Your task to perform on an android device: Go to display settings Image 0: 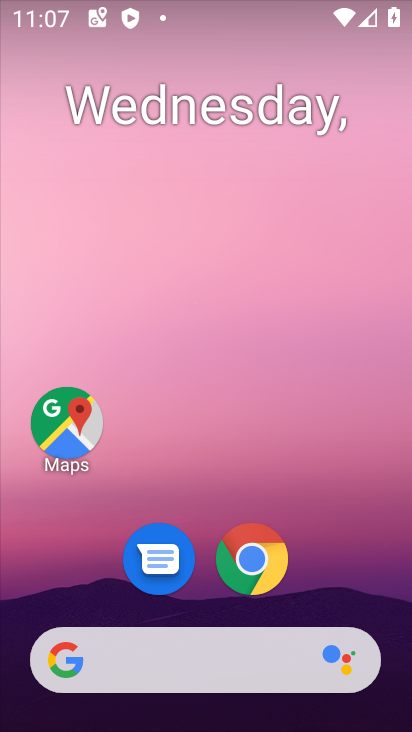
Step 0: drag from (174, 591) to (250, 38)
Your task to perform on an android device: Go to display settings Image 1: 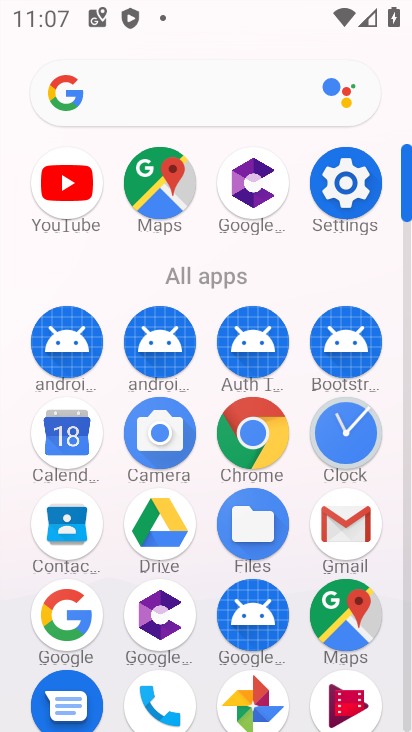
Step 1: click (347, 185)
Your task to perform on an android device: Go to display settings Image 2: 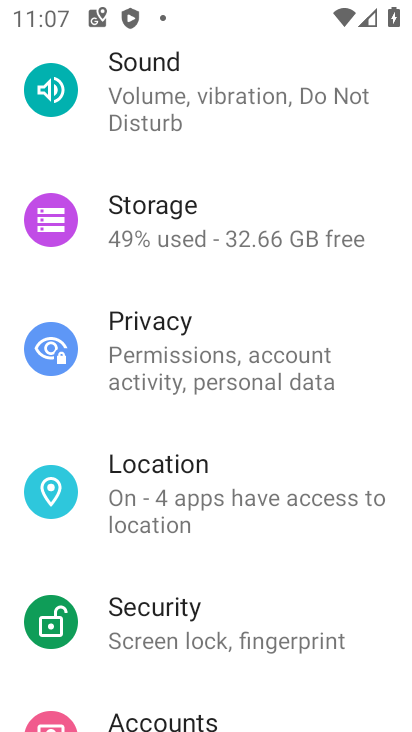
Step 2: drag from (217, 194) to (164, 591)
Your task to perform on an android device: Go to display settings Image 3: 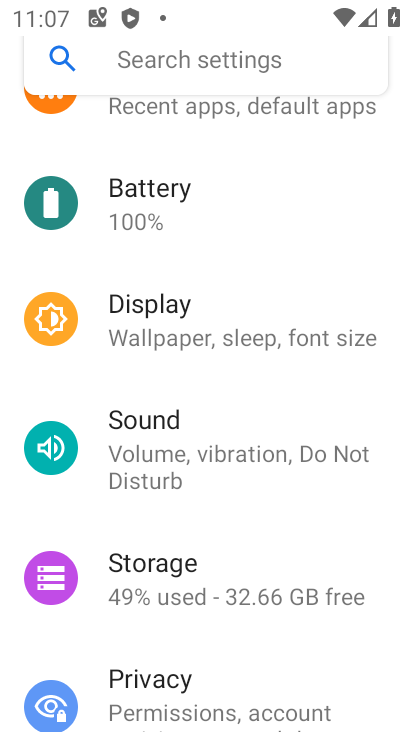
Step 3: click (163, 309)
Your task to perform on an android device: Go to display settings Image 4: 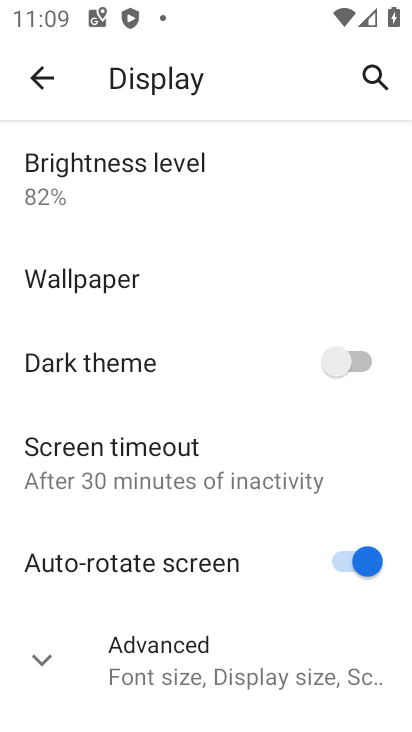
Step 4: task complete